Your task to perform on an android device: Go to internet settings Image 0: 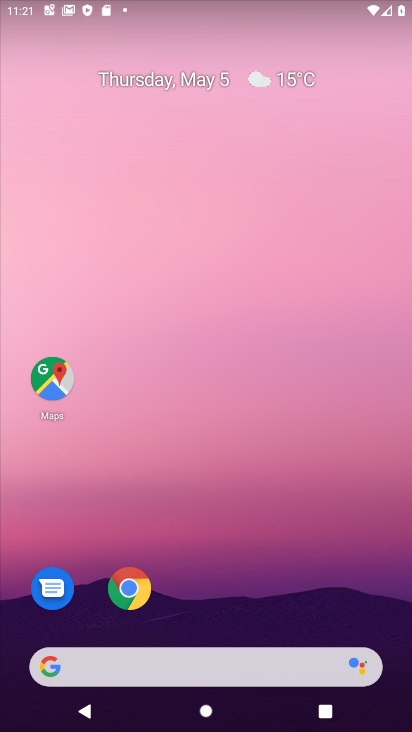
Step 0: drag from (297, 536) to (290, 7)
Your task to perform on an android device: Go to internet settings Image 1: 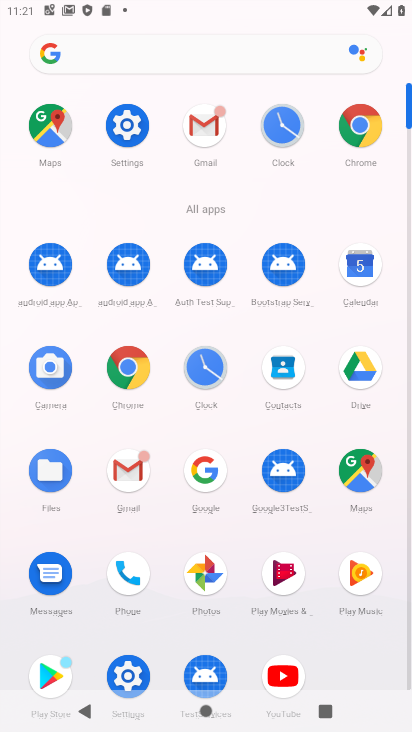
Step 1: click (117, 125)
Your task to perform on an android device: Go to internet settings Image 2: 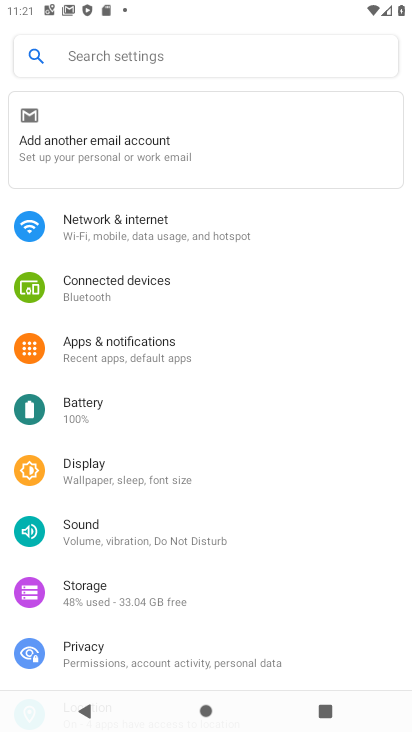
Step 2: click (220, 214)
Your task to perform on an android device: Go to internet settings Image 3: 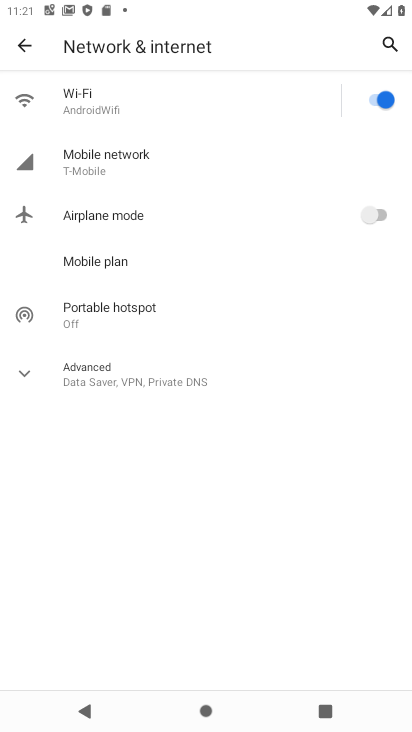
Step 3: task complete